Your task to perform on an android device: Do I have any events tomorrow? Image 0: 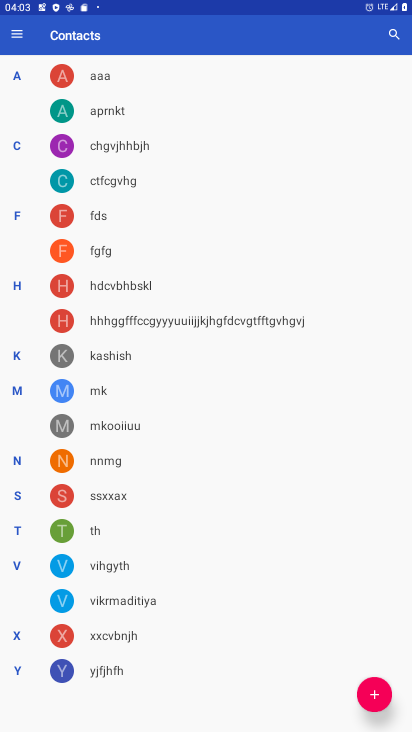
Step 0: press home button
Your task to perform on an android device: Do I have any events tomorrow? Image 1: 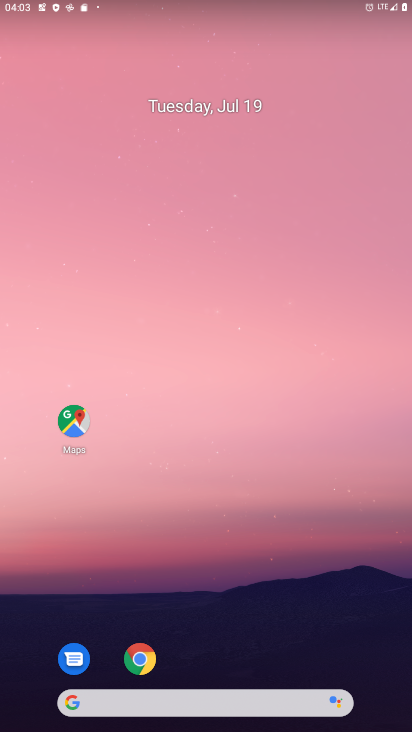
Step 1: drag from (238, 548) to (236, 220)
Your task to perform on an android device: Do I have any events tomorrow? Image 2: 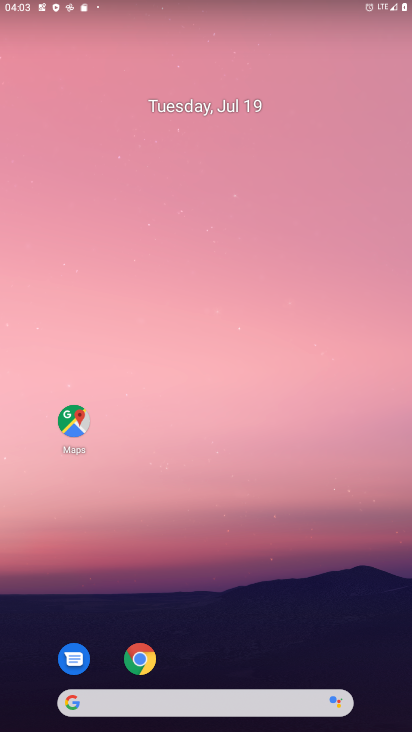
Step 2: drag from (171, 433) to (160, 8)
Your task to perform on an android device: Do I have any events tomorrow? Image 3: 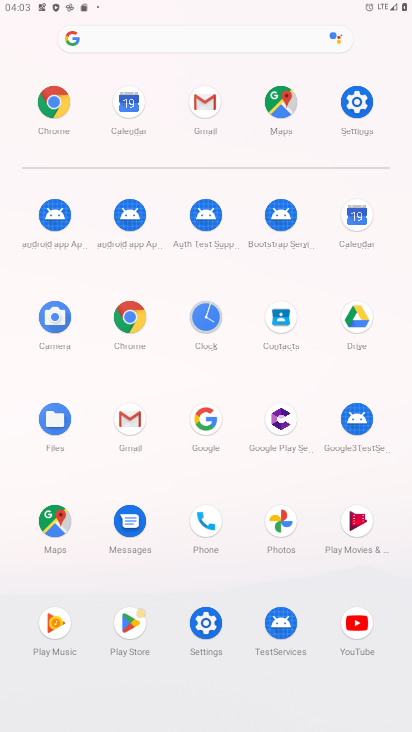
Step 3: click (360, 111)
Your task to perform on an android device: Do I have any events tomorrow? Image 4: 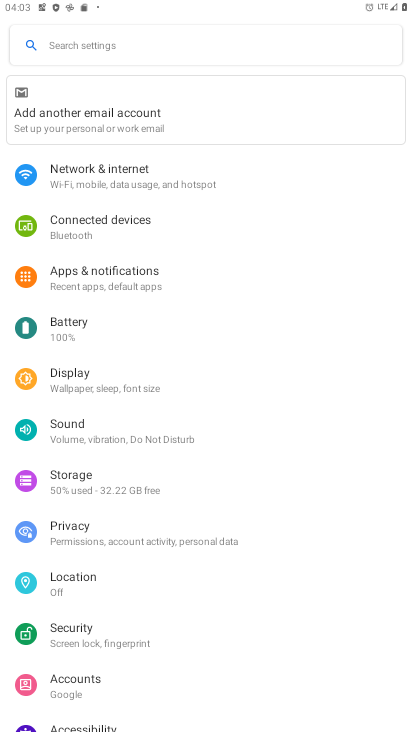
Step 4: press back button
Your task to perform on an android device: Do I have any events tomorrow? Image 5: 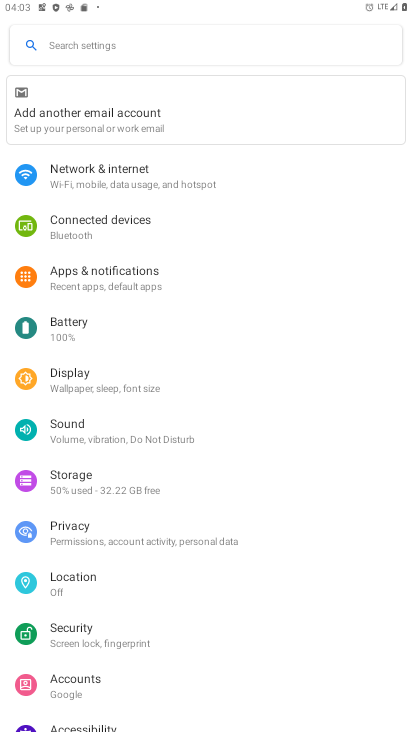
Step 5: press back button
Your task to perform on an android device: Do I have any events tomorrow? Image 6: 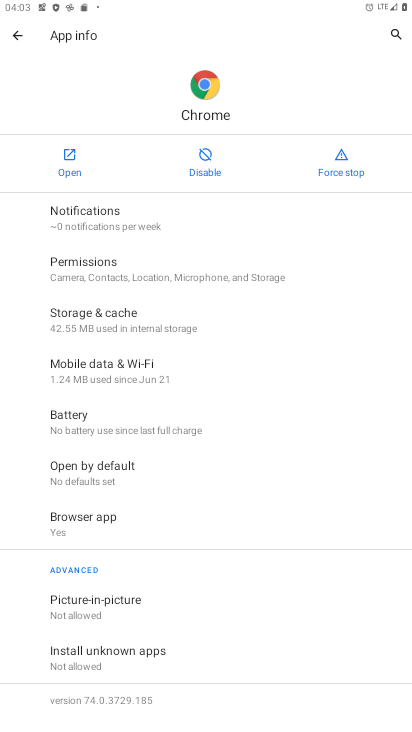
Step 6: press home button
Your task to perform on an android device: Do I have any events tomorrow? Image 7: 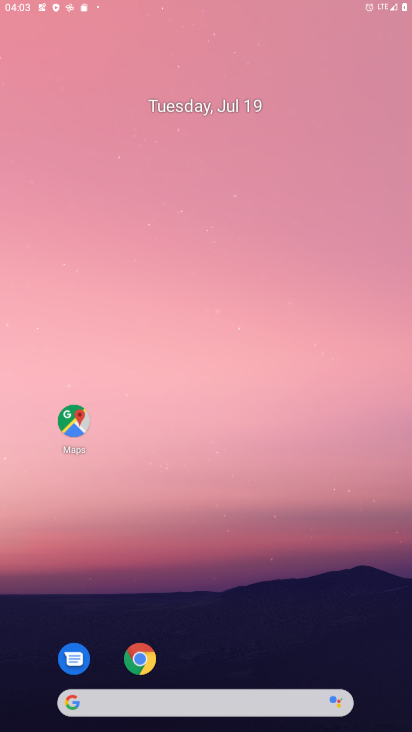
Step 7: drag from (284, 596) to (282, 172)
Your task to perform on an android device: Do I have any events tomorrow? Image 8: 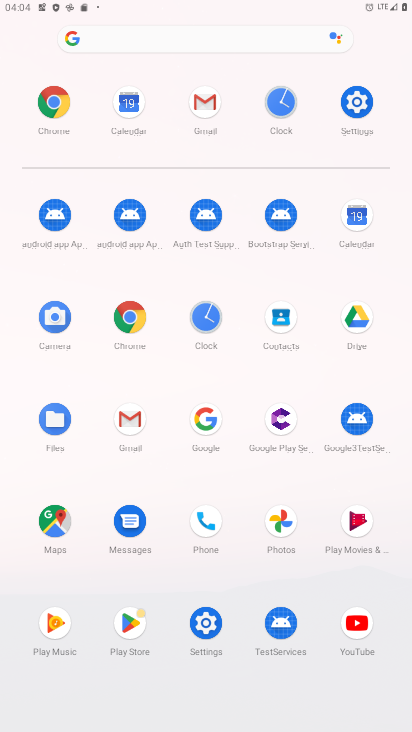
Step 8: click (361, 245)
Your task to perform on an android device: Do I have any events tomorrow? Image 9: 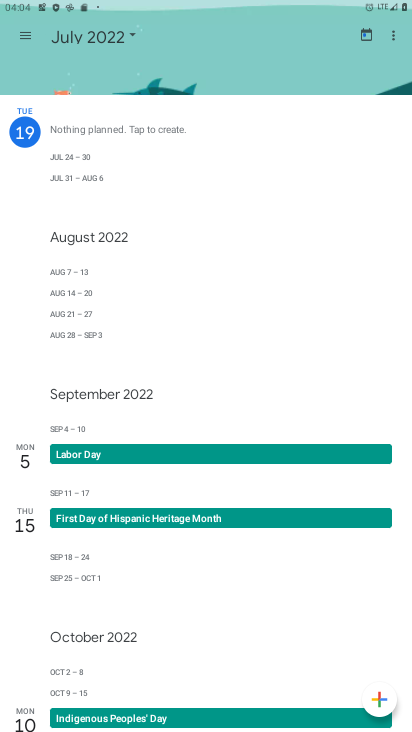
Step 9: click (110, 30)
Your task to perform on an android device: Do I have any events tomorrow? Image 10: 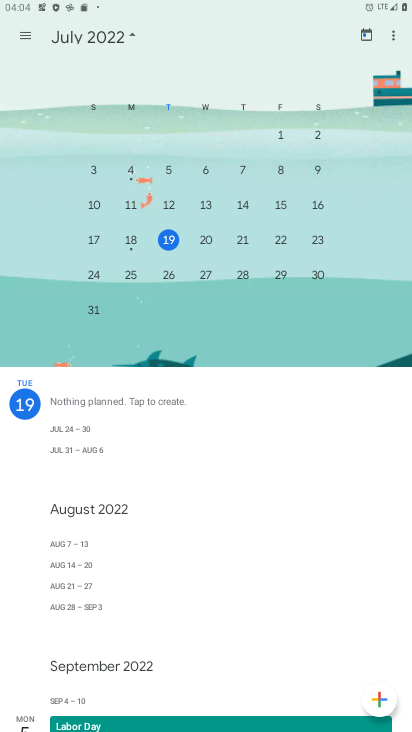
Step 10: click (205, 228)
Your task to perform on an android device: Do I have any events tomorrow? Image 11: 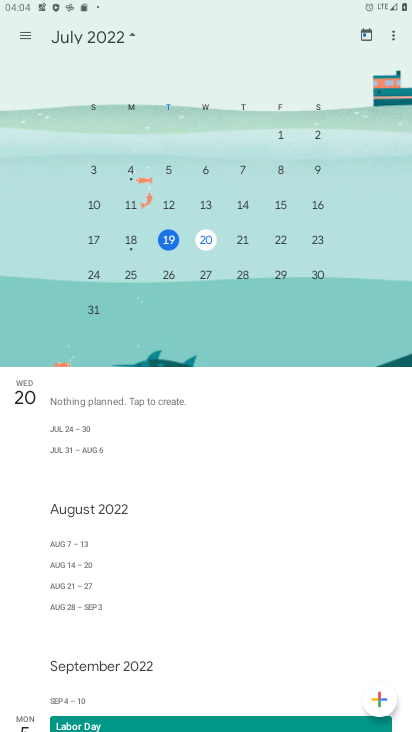
Step 11: click (205, 228)
Your task to perform on an android device: Do I have any events tomorrow? Image 12: 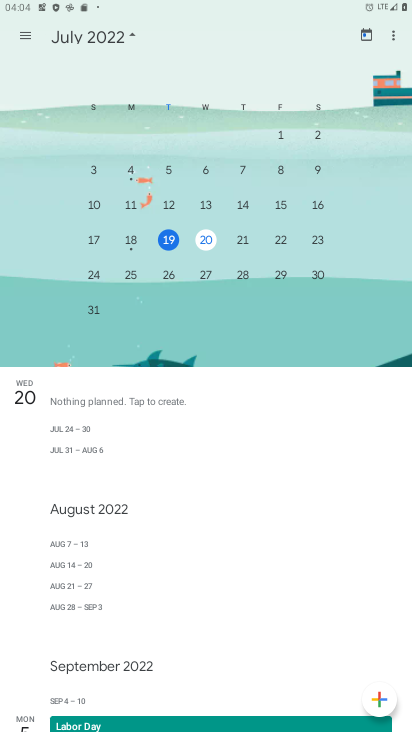
Step 12: task complete